Your task to perform on an android device: Open settings Image 0: 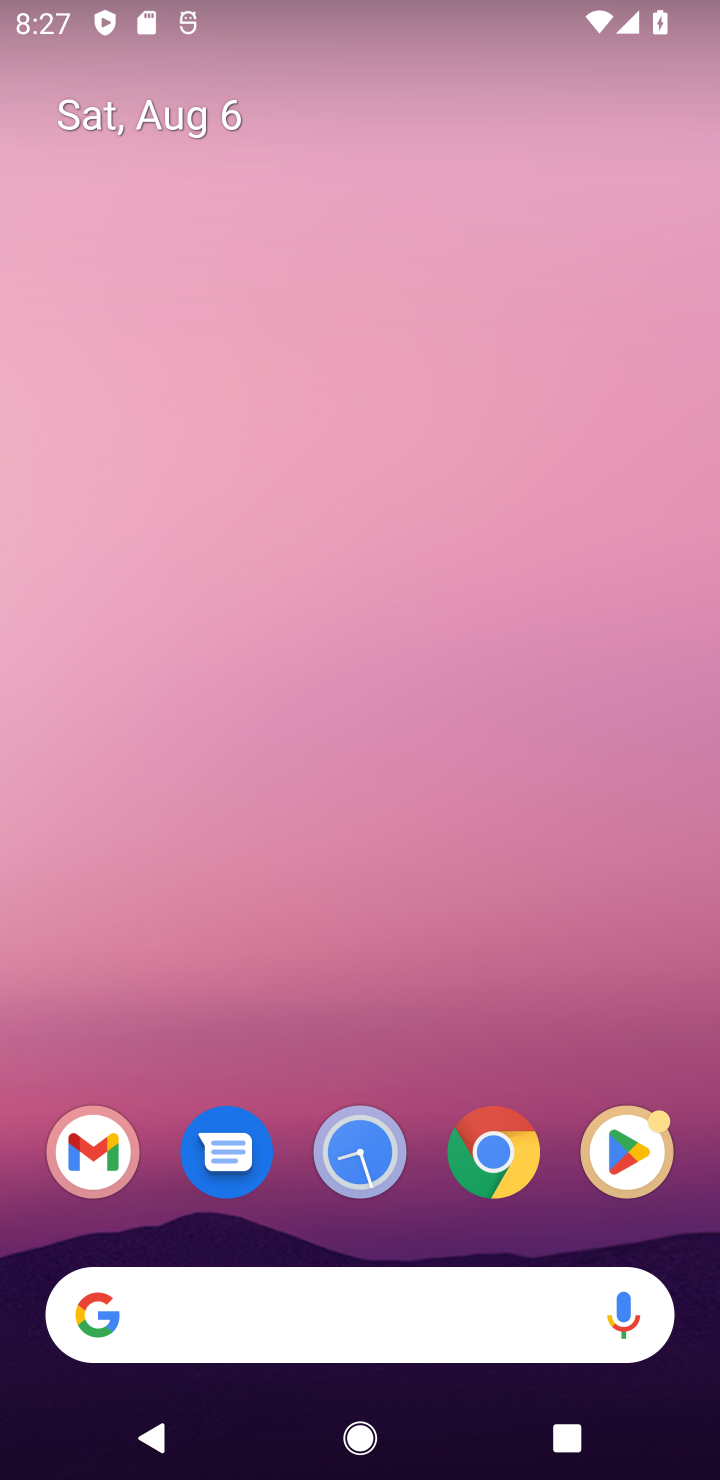
Step 0: drag from (473, 1063) to (344, 234)
Your task to perform on an android device: Open settings Image 1: 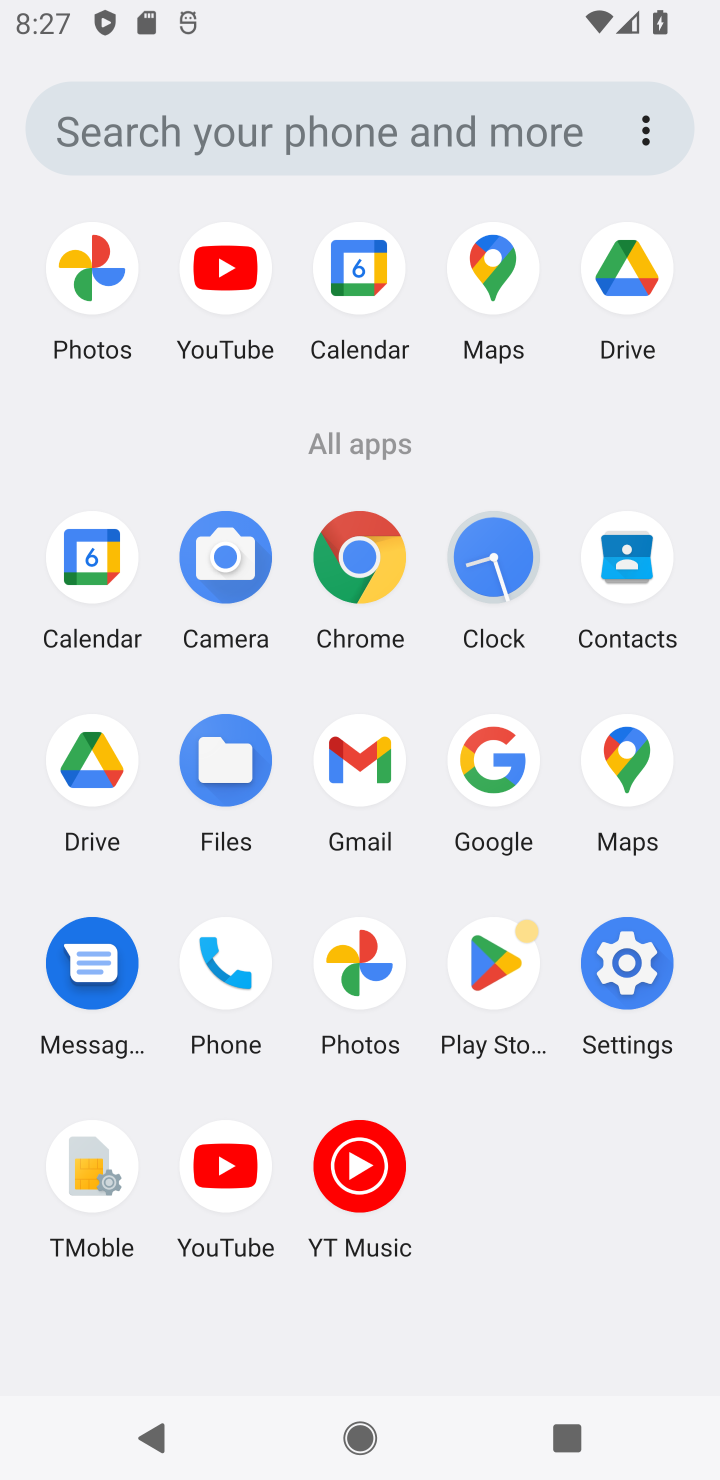
Step 1: click (633, 991)
Your task to perform on an android device: Open settings Image 2: 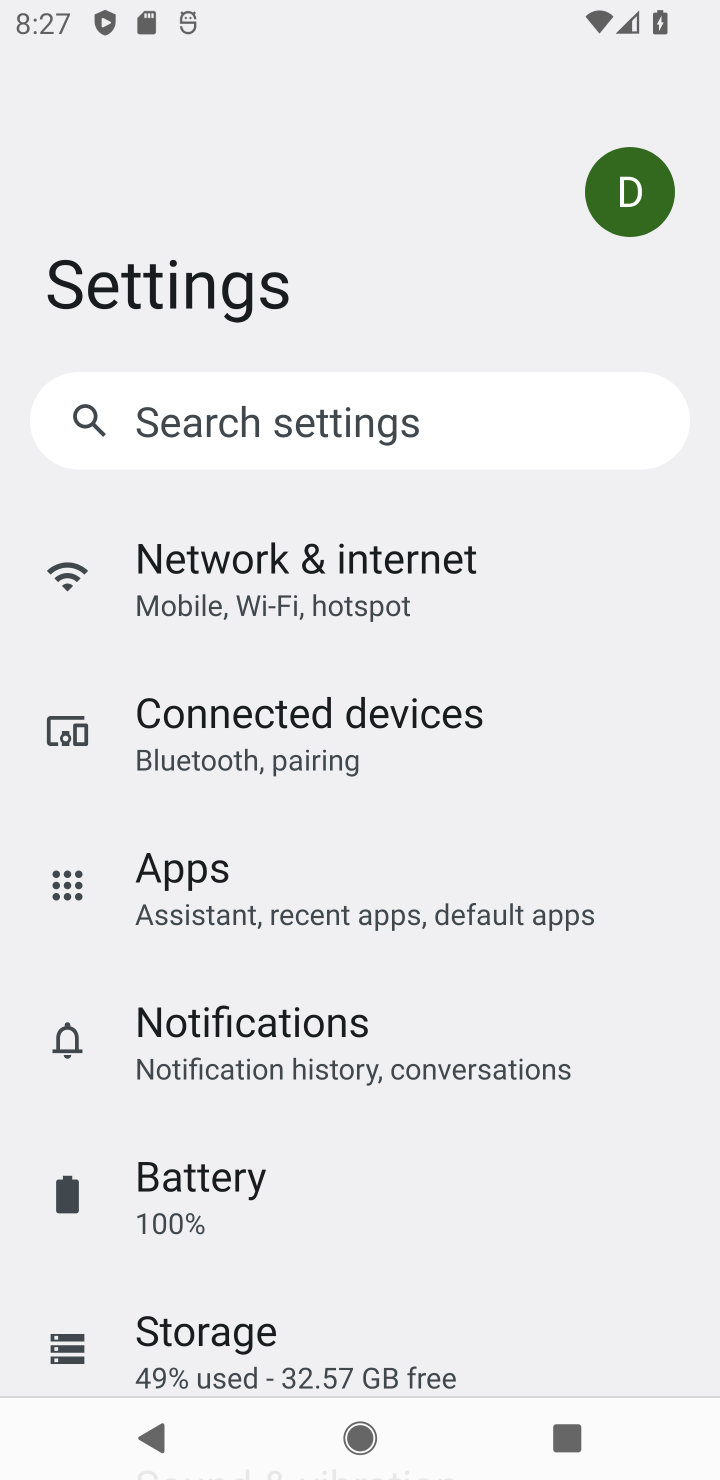
Step 2: task complete